Your task to perform on an android device: Turn on the flashlight Image 0: 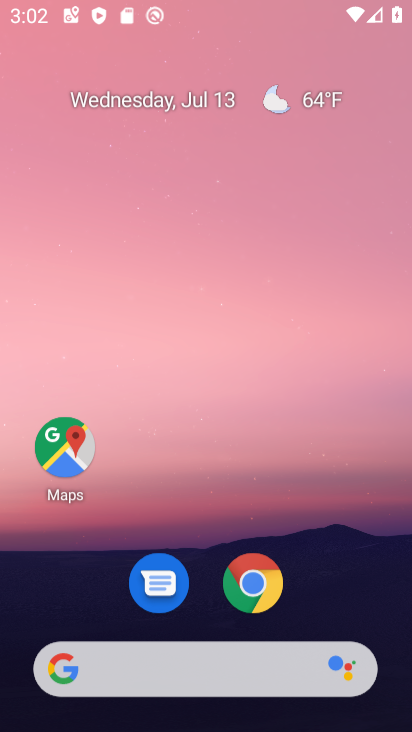
Step 0: press home button
Your task to perform on an android device: Turn on the flashlight Image 1: 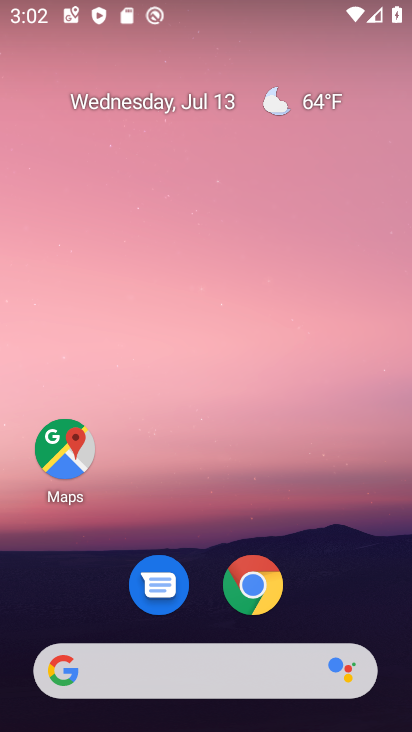
Step 1: task complete